Your task to perform on an android device: Go to ESPN.com Image 0: 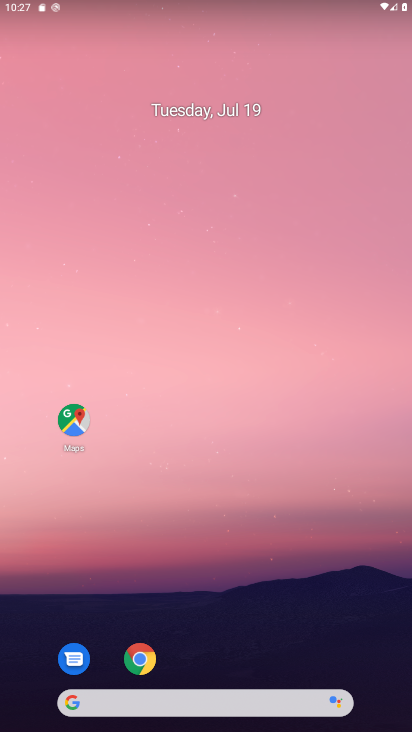
Step 0: drag from (216, 370) to (248, 142)
Your task to perform on an android device: Go to ESPN.com Image 1: 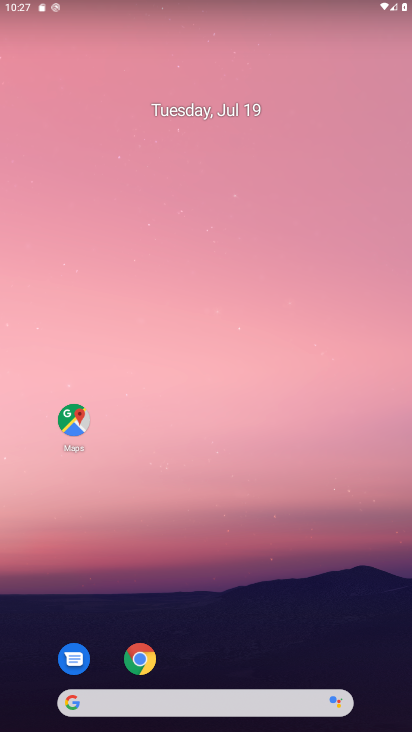
Step 1: drag from (203, 652) to (43, 175)
Your task to perform on an android device: Go to ESPN.com Image 2: 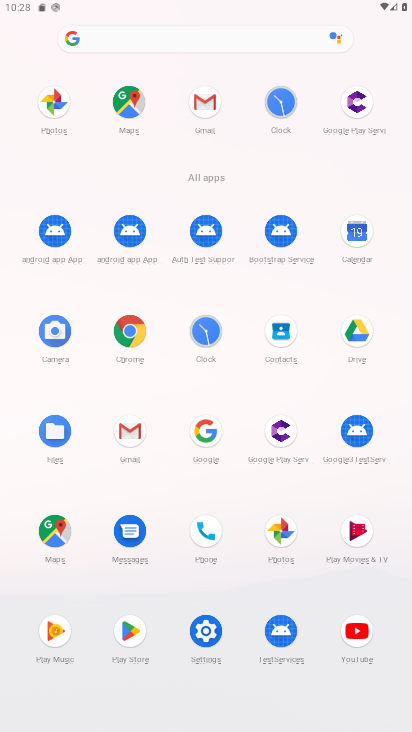
Step 2: click (129, 336)
Your task to perform on an android device: Go to ESPN.com Image 3: 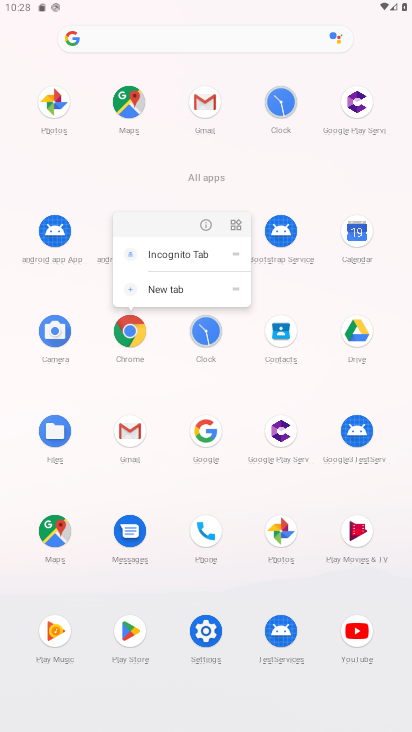
Step 3: click (205, 220)
Your task to perform on an android device: Go to ESPN.com Image 4: 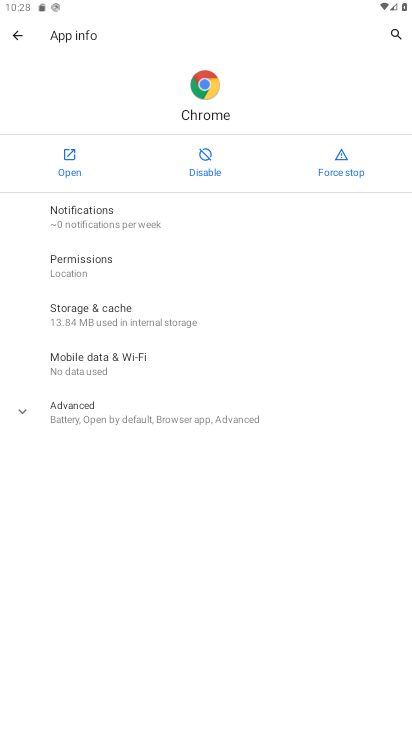
Step 4: click (69, 157)
Your task to perform on an android device: Go to ESPN.com Image 5: 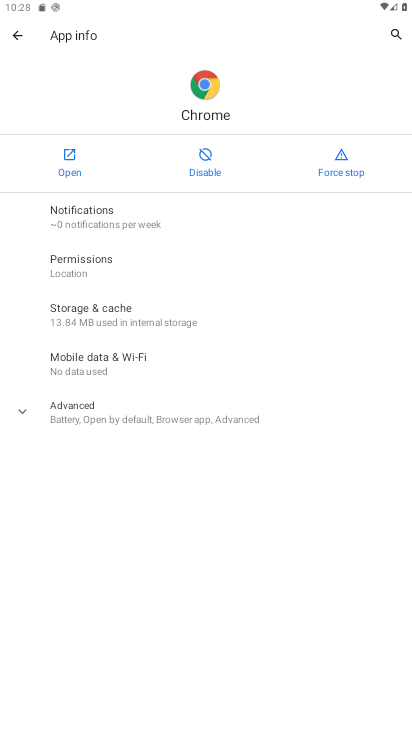
Step 5: click (69, 157)
Your task to perform on an android device: Go to ESPN.com Image 6: 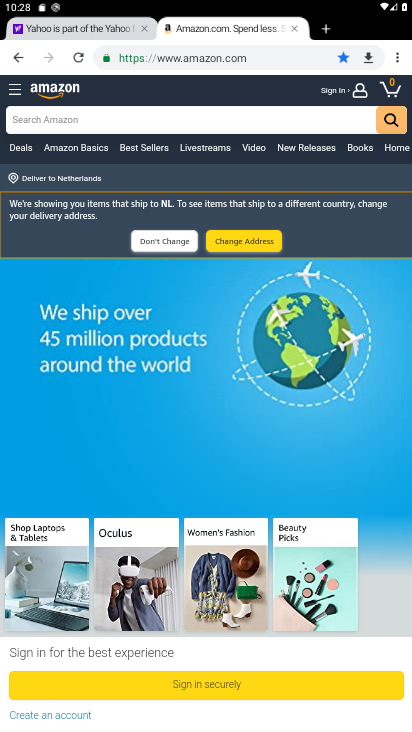
Step 6: click (327, 29)
Your task to perform on an android device: Go to ESPN.com Image 7: 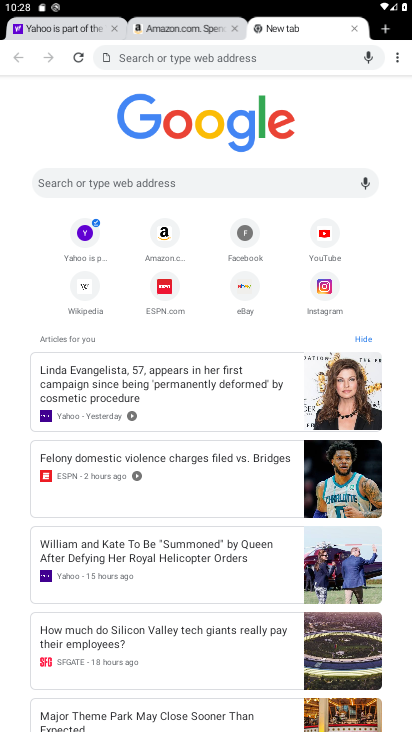
Step 7: click (165, 291)
Your task to perform on an android device: Go to ESPN.com Image 8: 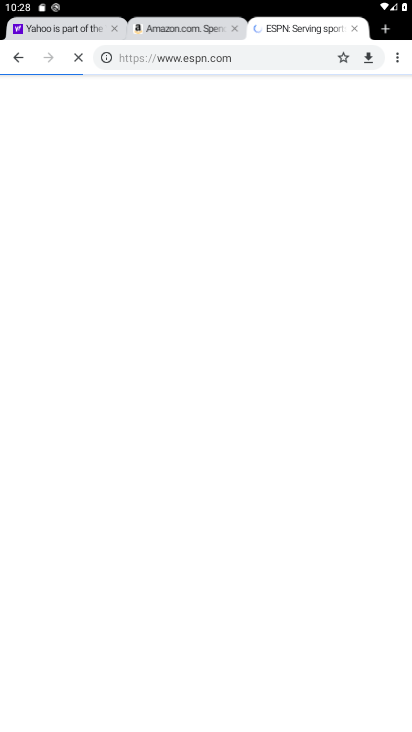
Step 8: task complete